Your task to perform on an android device: install app "Duolingo: language lessons" Image 0: 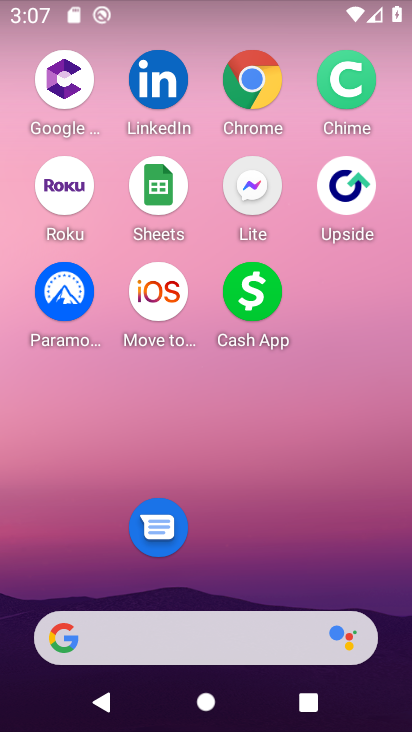
Step 0: drag from (240, 585) to (284, 45)
Your task to perform on an android device: install app "Duolingo: language lessons" Image 1: 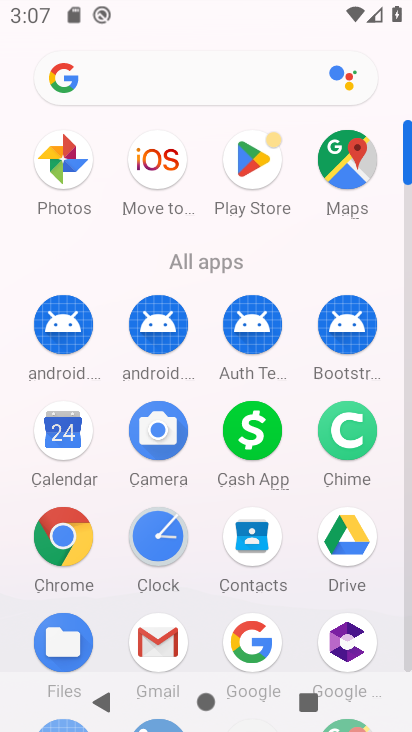
Step 1: click (263, 145)
Your task to perform on an android device: install app "Duolingo: language lessons" Image 2: 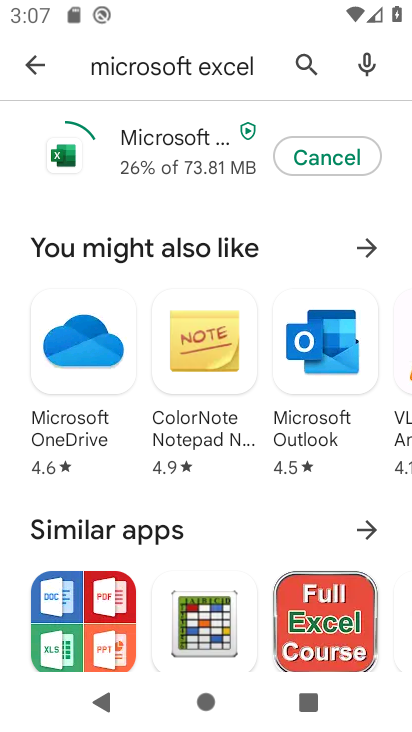
Step 2: click (312, 86)
Your task to perform on an android device: install app "Duolingo: language lessons" Image 3: 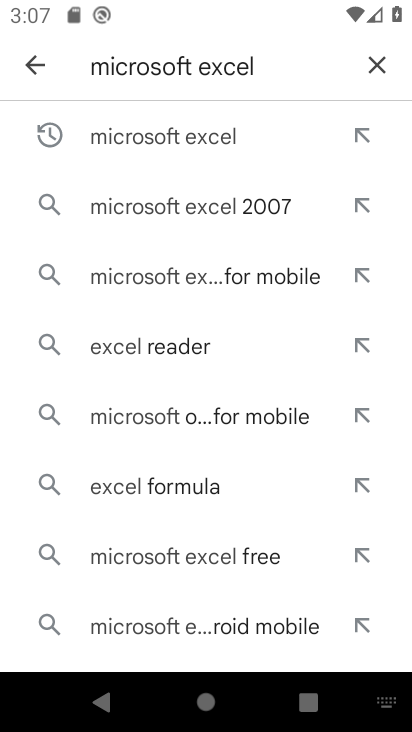
Step 3: click (370, 84)
Your task to perform on an android device: install app "Duolingo: language lessons" Image 4: 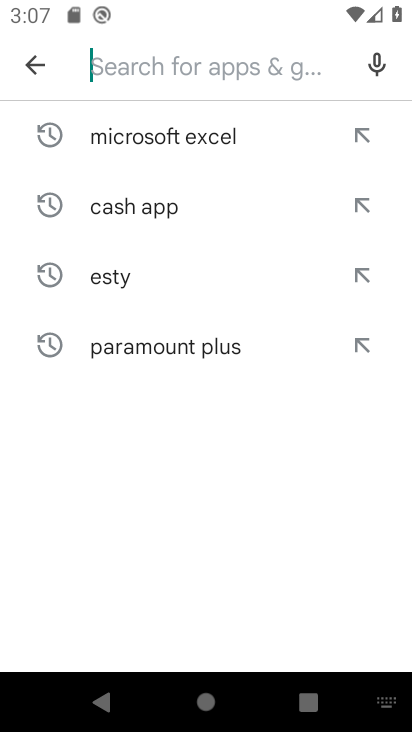
Step 4: type "duolingo"
Your task to perform on an android device: install app "Duolingo: language lessons" Image 5: 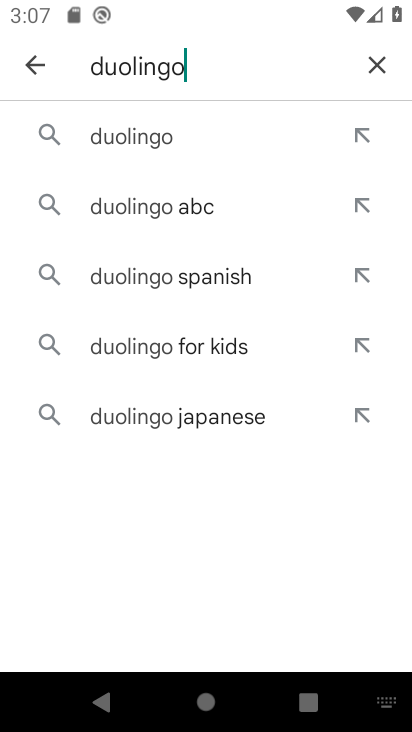
Step 5: click (106, 140)
Your task to perform on an android device: install app "Duolingo: language lessons" Image 6: 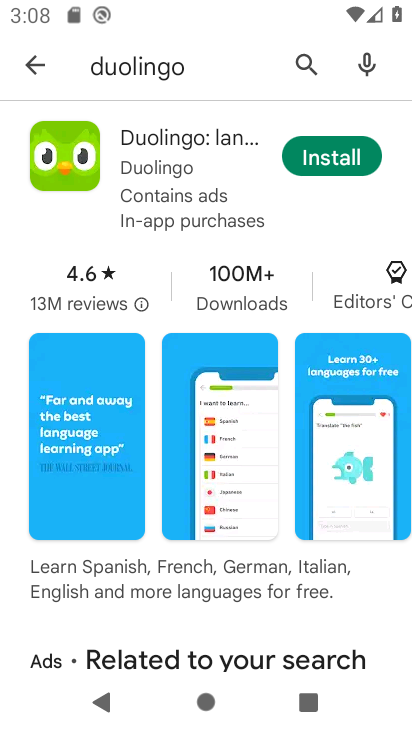
Step 6: click (298, 160)
Your task to perform on an android device: install app "Duolingo: language lessons" Image 7: 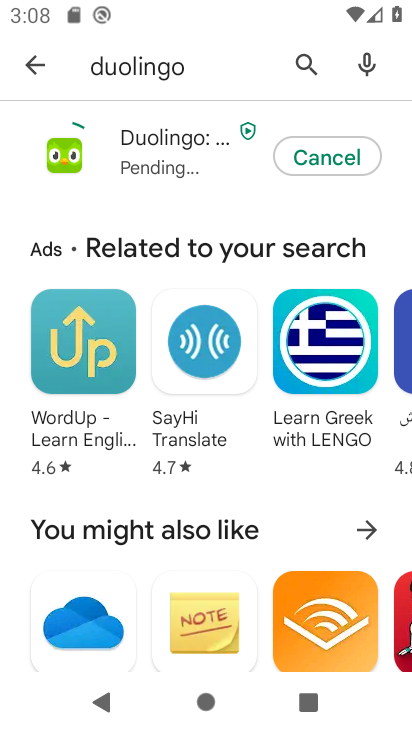
Step 7: task complete